Your task to perform on an android device: turn notification dots off Image 0: 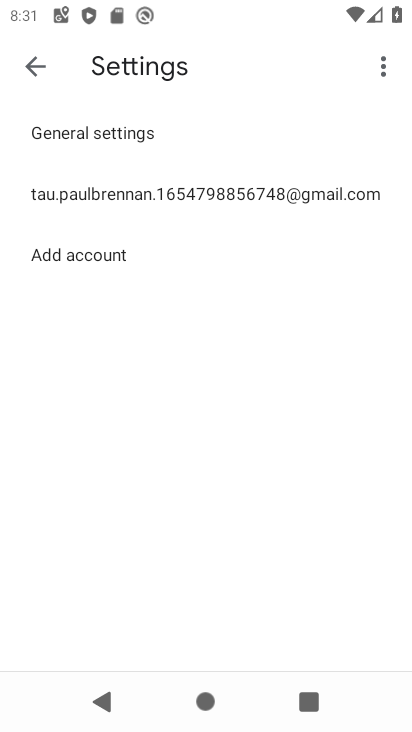
Step 0: press home button
Your task to perform on an android device: turn notification dots off Image 1: 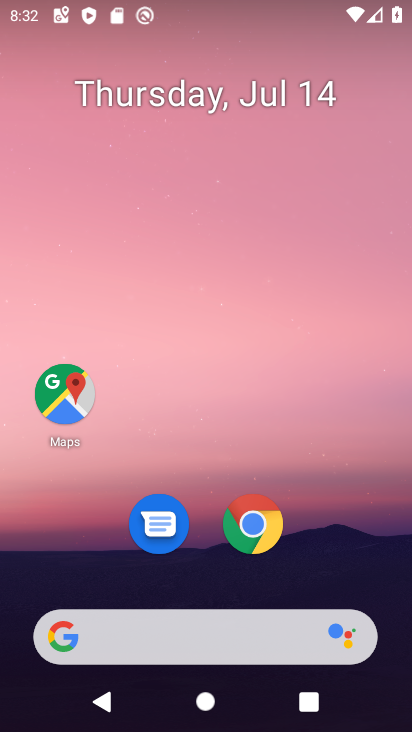
Step 1: drag from (325, 532) to (357, 79)
Your task to perform on an android device: turn notification dots off Image 2: 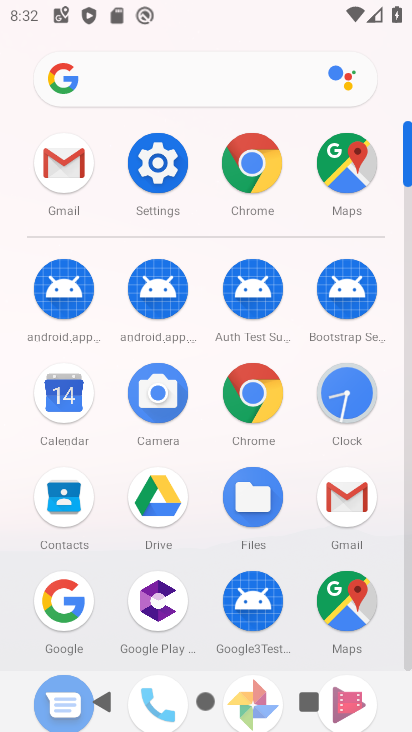
Step 2: click (170, 160)
Your task to perform on an android device: turn notification dots off Image 3: 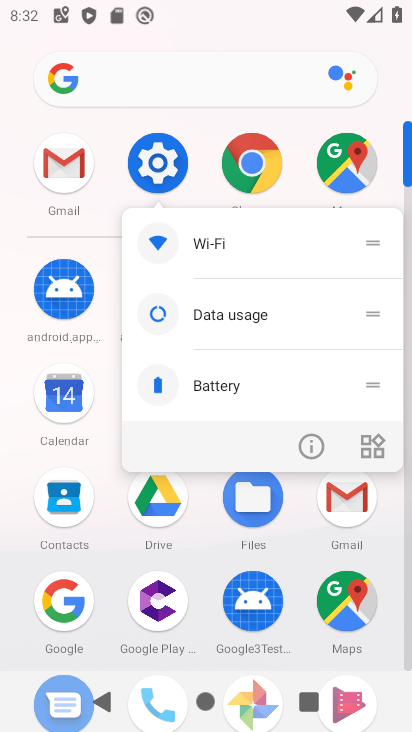
Step 3: click (172, 151)
Your task to perform on an android device: turn notification dots off Image 4: 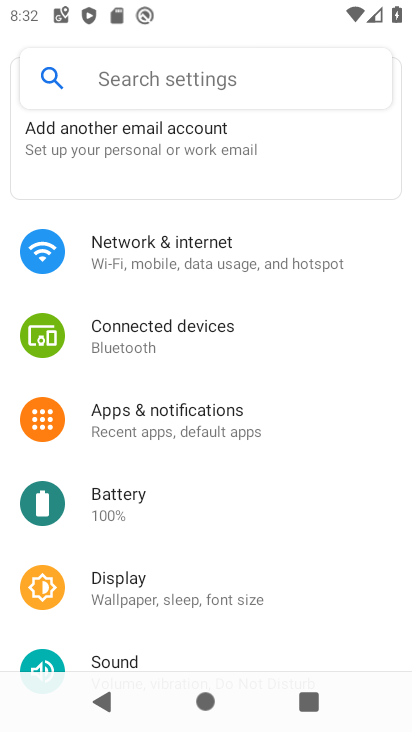
Step 4: click (196, 424)
Your task to perform on an android device: turn notification dots off Image 5: 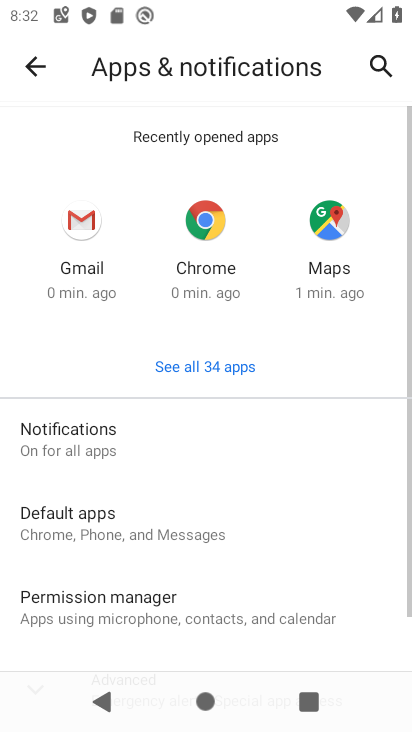
Step 5: click (99, 428)
Your task to perform on an android device: turn notification dots off Image 6: 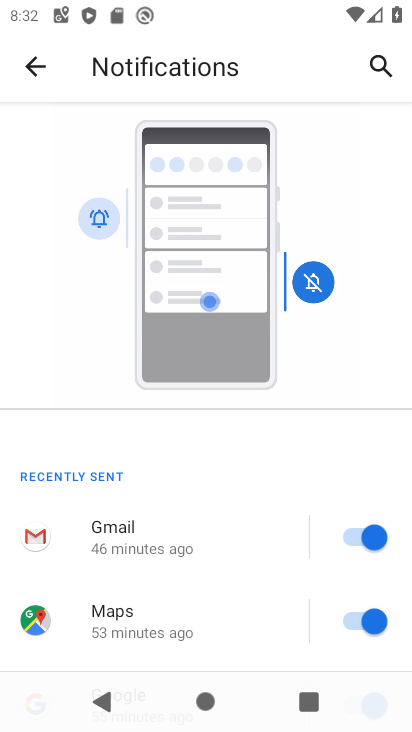
Step 6: drag from (244, 543) to (263, 210)
Your task to perform on an android device: turn notification dots off Image 7: 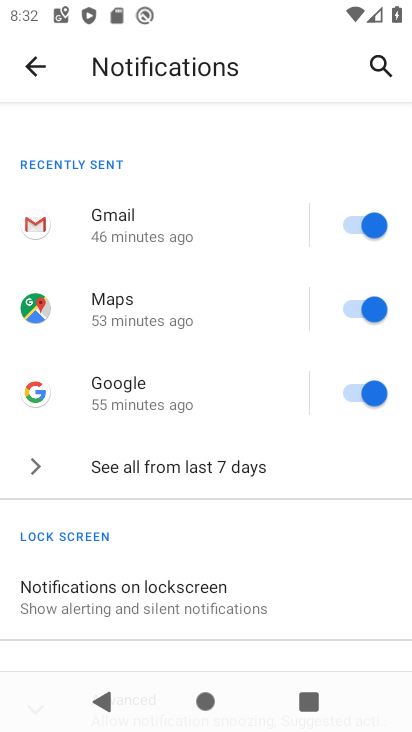
Step 7: drag from (221, 543) to (268, 253)
Your task to perform on an android device: turn notification dots off Image 8: 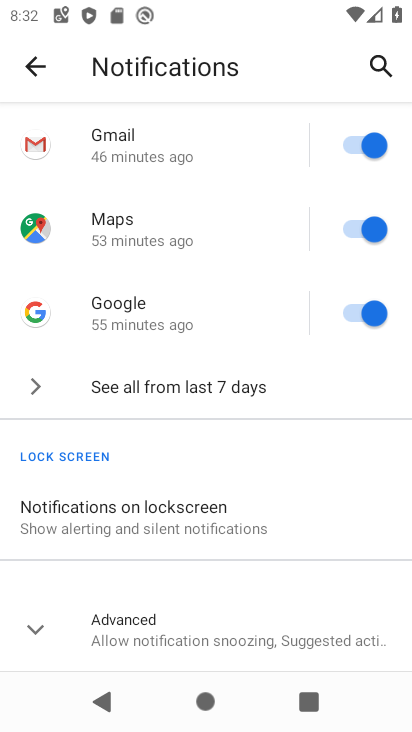
Step 8: click (35, 630)
Your task to perform on an android device: turn notification dots off Image 9: 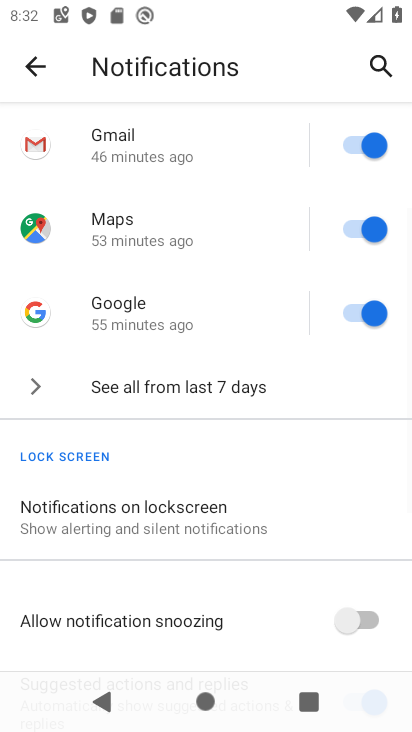
Step 9: task complete